Your task to perform on an android device: open app "TextNow: Call + Text Unlimited" (install if not already installed) and go to login screen Image 0: 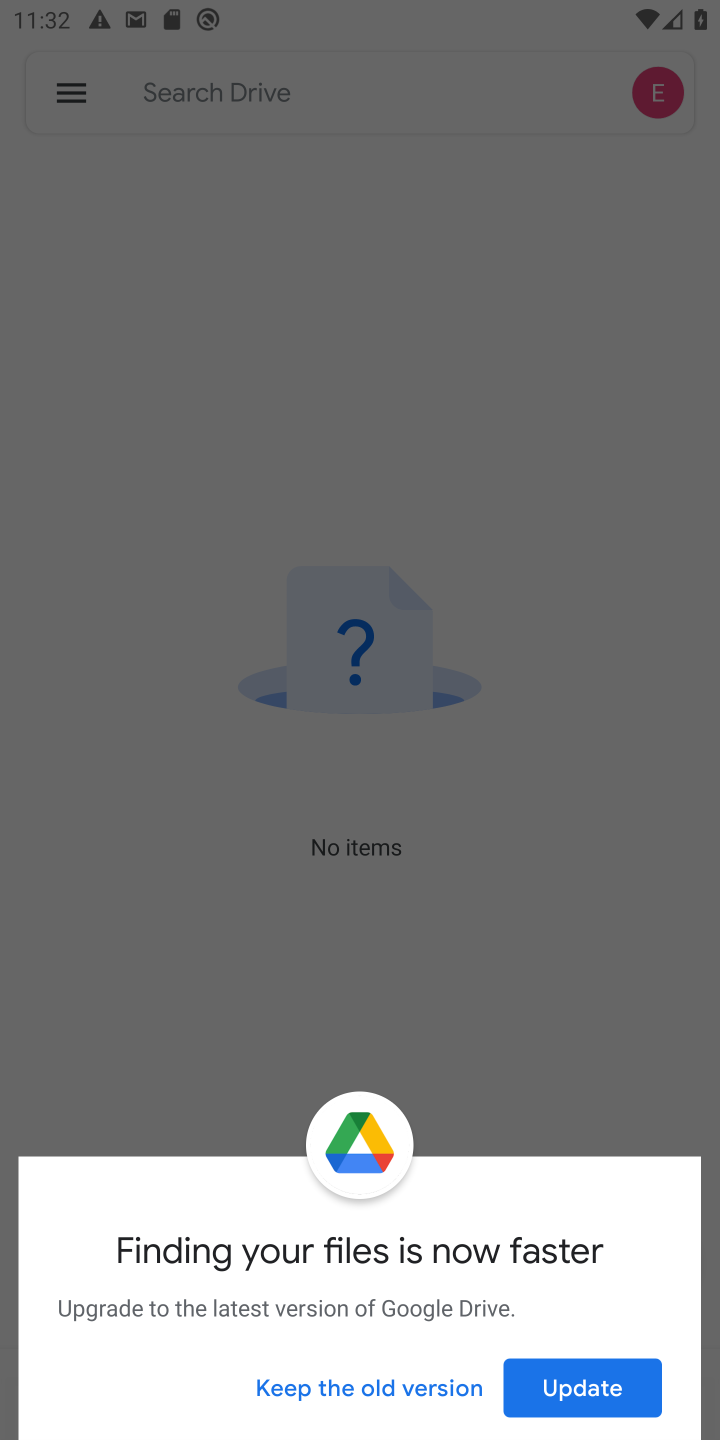
Step 0: press home button
Your task to perform on an android device: open app "TextNow: Call + Text Unlimited" (install if not already installed) and go to login screen Image 1: 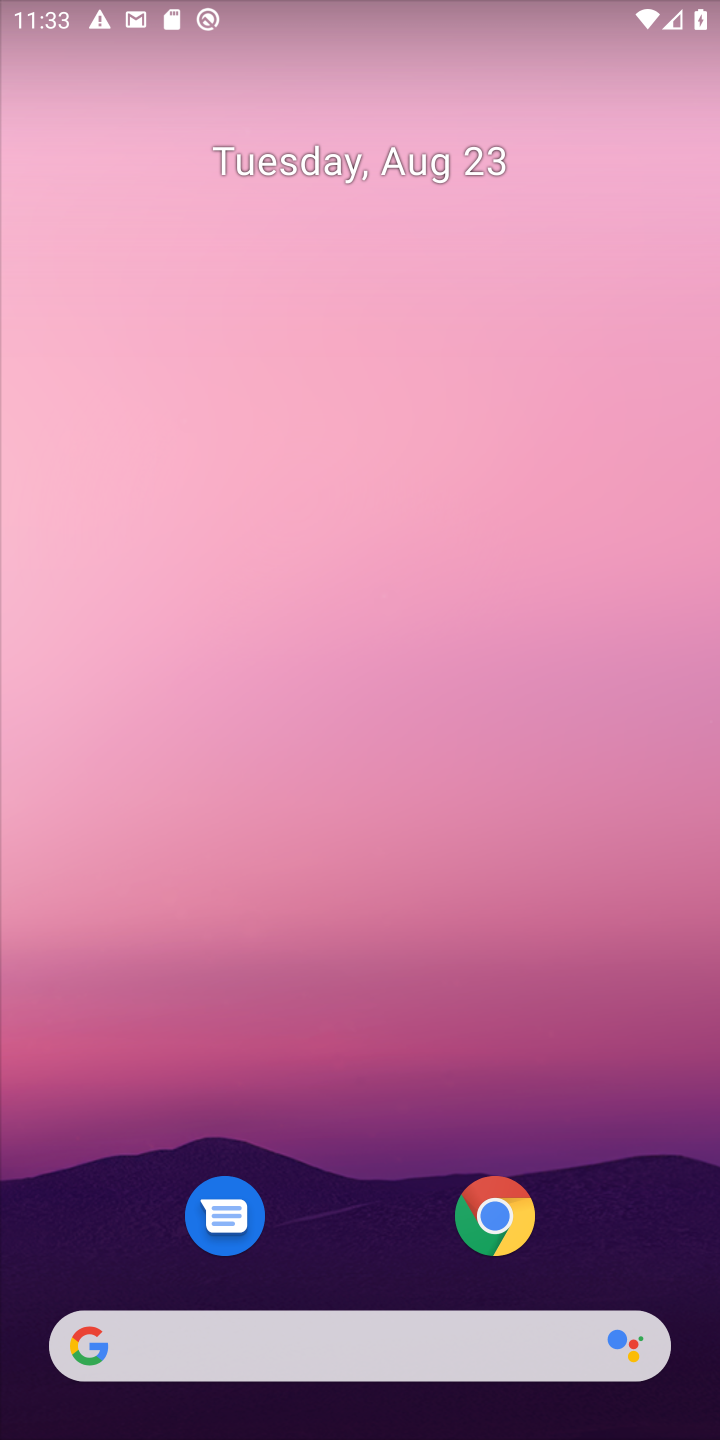
Step 1: drag from (306, 1358) to (411, 252)
Your task to perform on an android device: open app "TextNow: Call + Text Unlimited" (install if not already installed) and go to login screen Image 2: 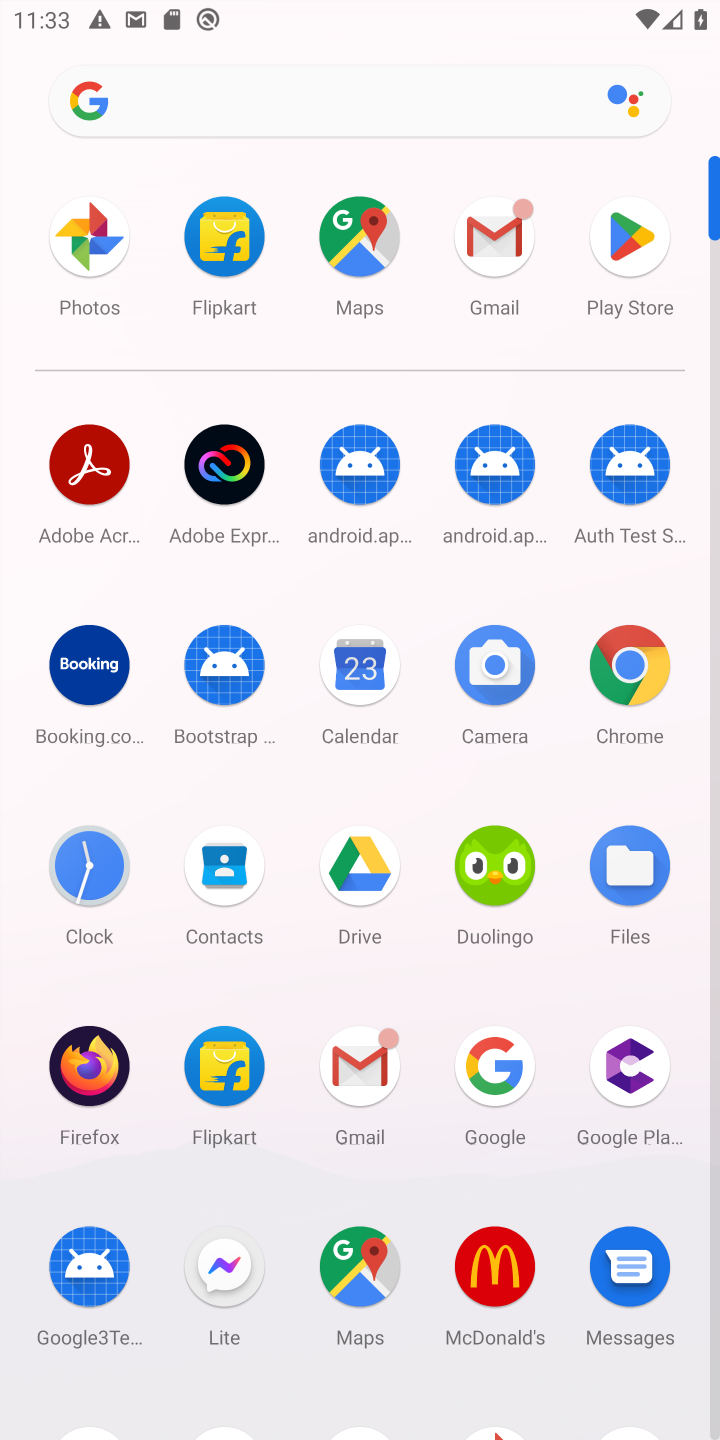
Step 2: click (633, 246)
Your task to perform on an android device: open app "TextNow: Call + Text Unlimited" (install if not already installed) and go to login screen Image 3: 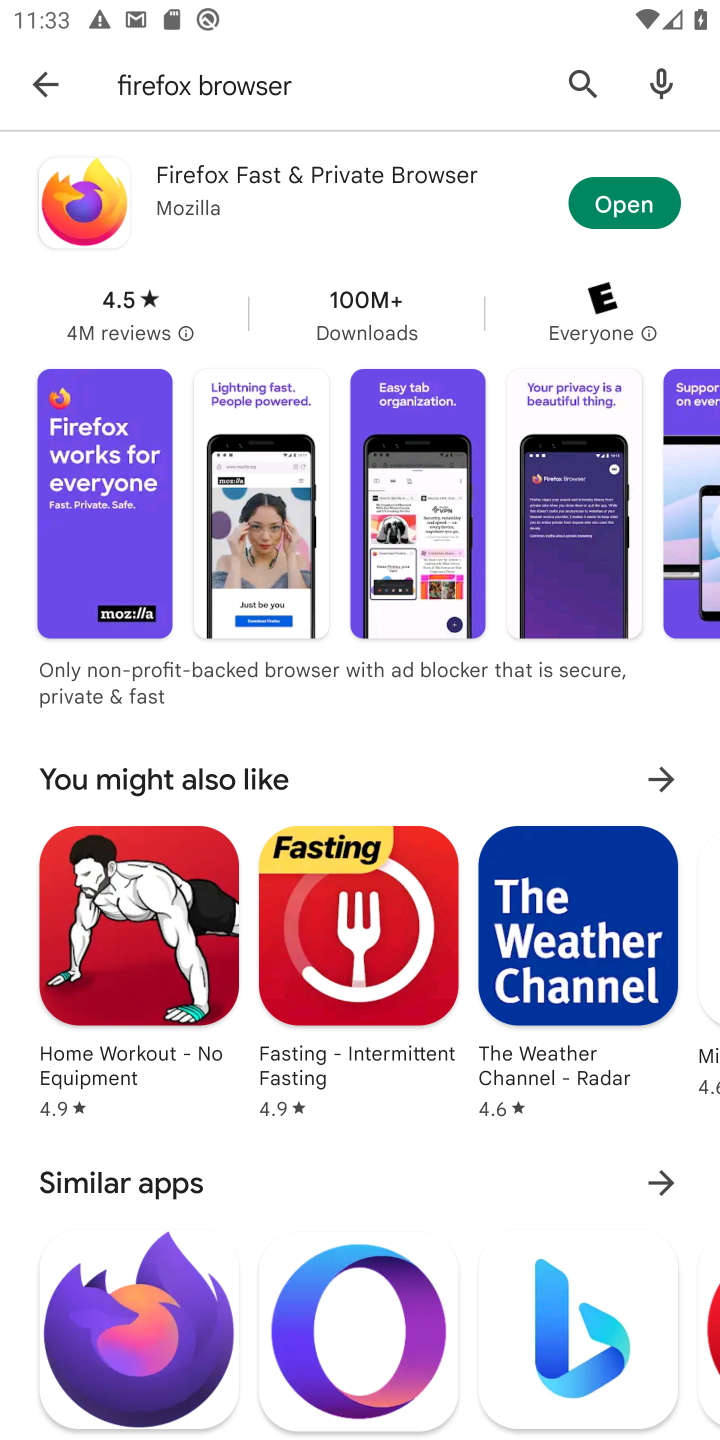
Step 3: press back button
Your task to perform on an android device: open app "TextNow: Call + Text Unlimited" (install if not already installed) and go to login screen Image 4: 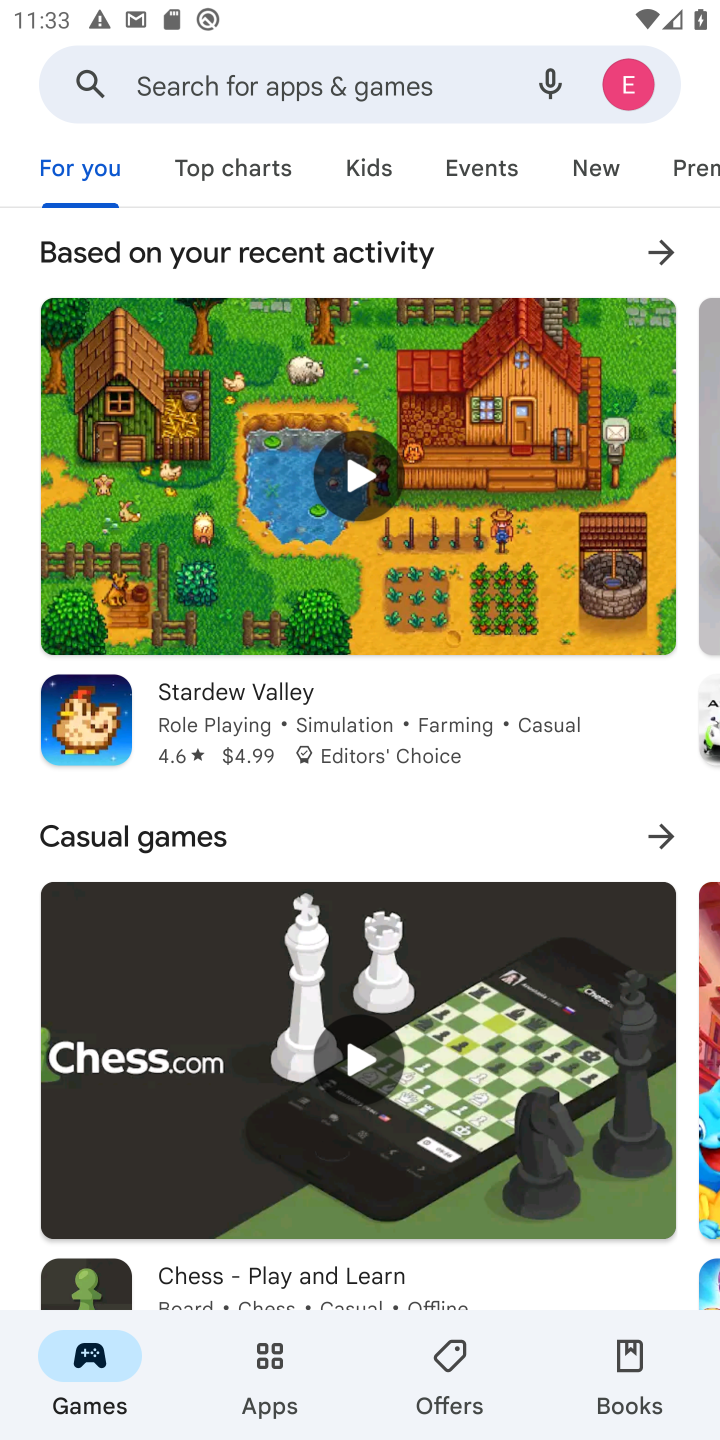
Step 4: click (299, 76)
Your task to perform on an android device: open app "TextNow: Call + Text Unlimited" (install if not already installed) and go to login screen Image 5: 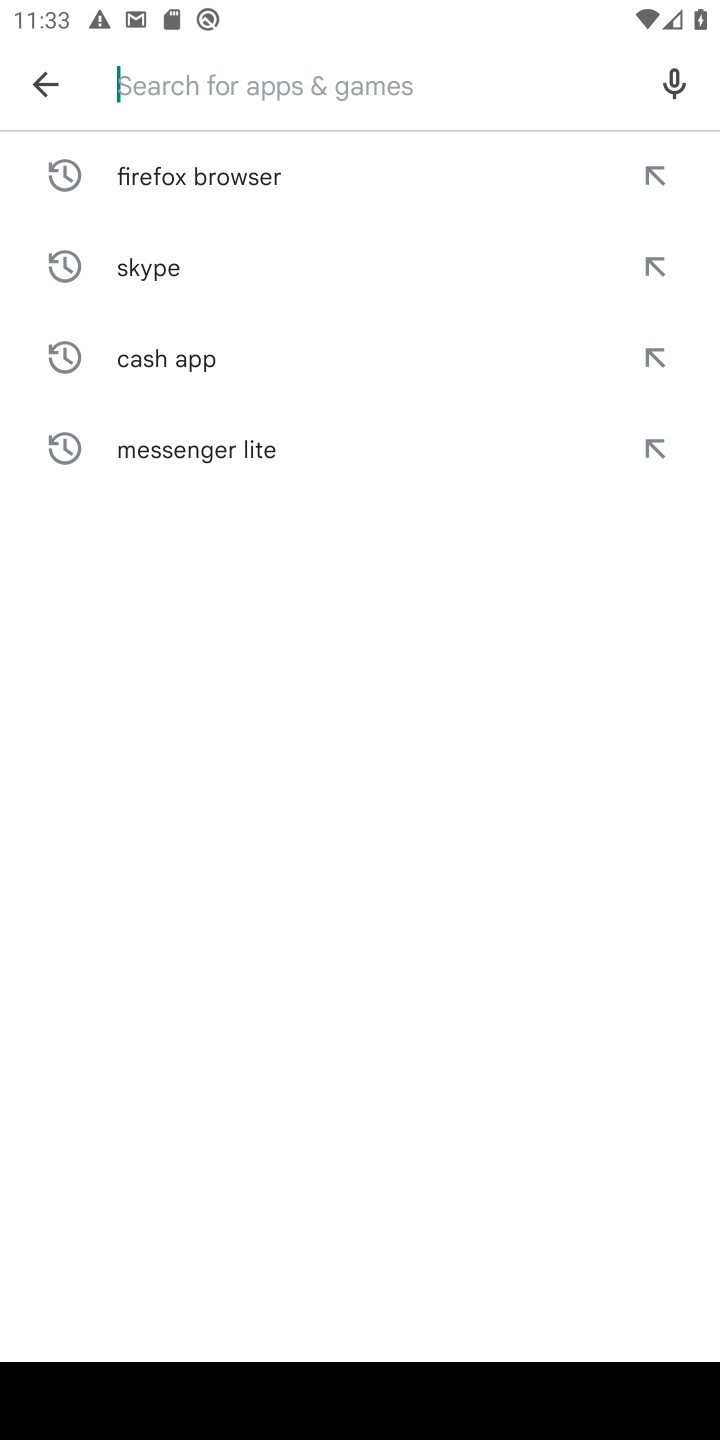
Step 5: type "TextNow: Call + Text Unlimited"
Your task to perform on an android device: open app "TextNow: Call + Text Unlimited" (install if not already installed) and go to login screen Image 6: 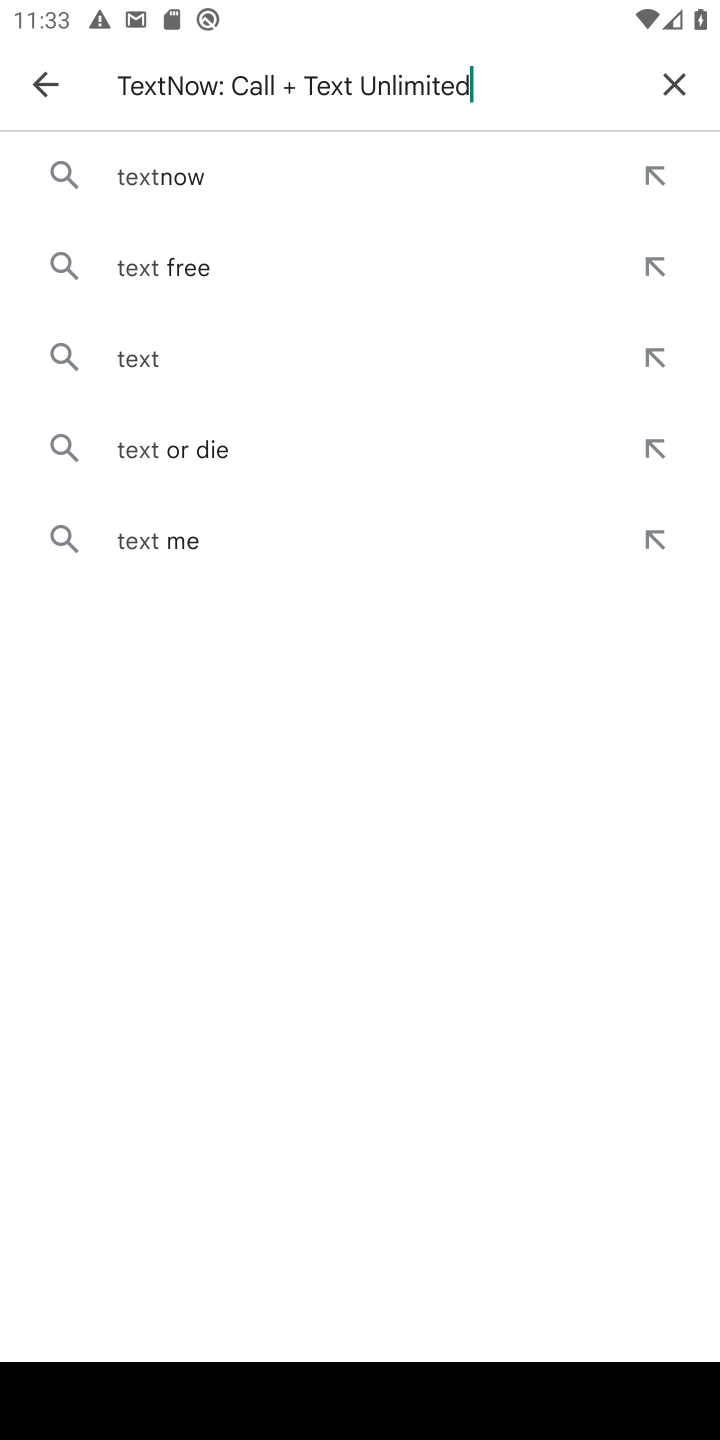
Step 6: type ""
Your task to perform on an android device: open app "TextNow: Call + Text Unlimited" (install if not already installed) and go to login screen Image 7: 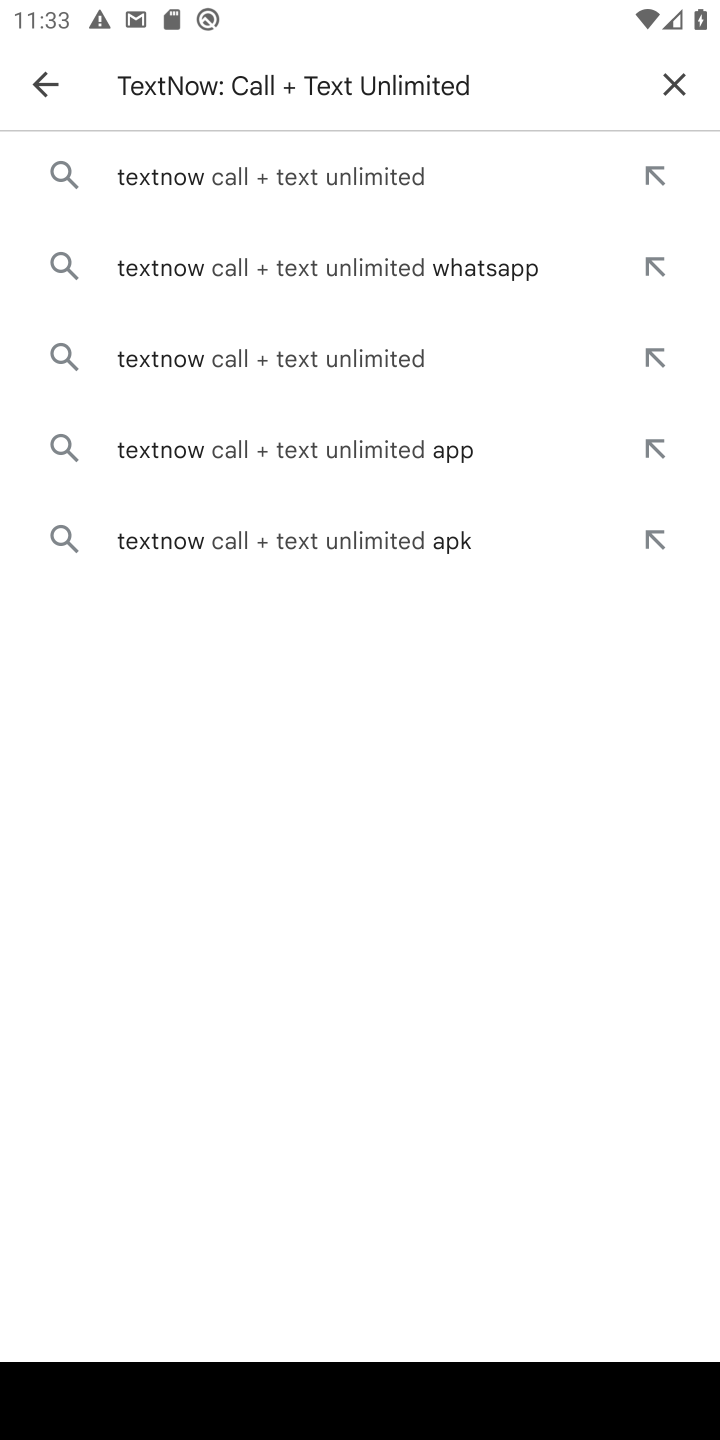
Step 7: click (363, 164)
Your task to perform on an android device: open app "TextNow: Call + Text Unlimited" (install if not already installed) and go to login screen Image 8: 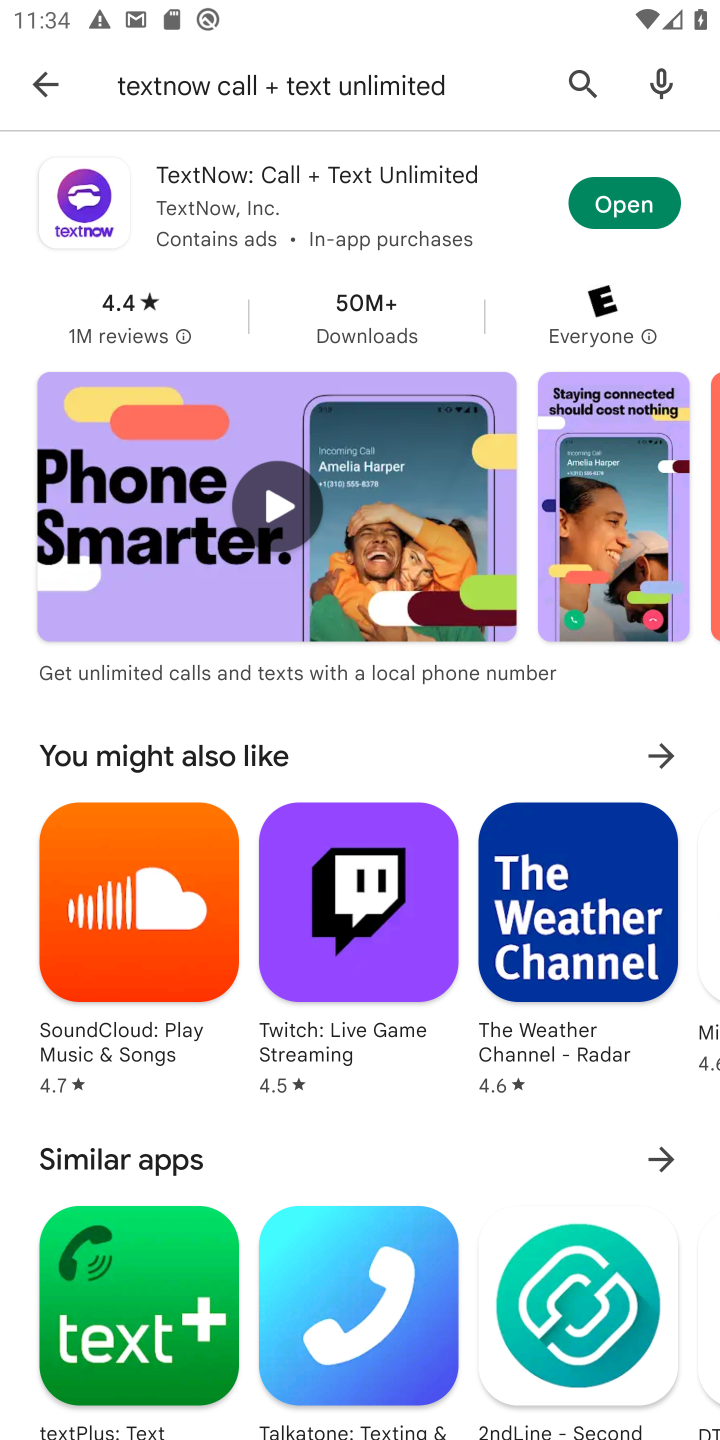
Step 8: click (591, 216)
Your task to perform on an android device: open app "TextNow: Call + Text Unlimited" (install if not already installed) and go to login screen Image 9: 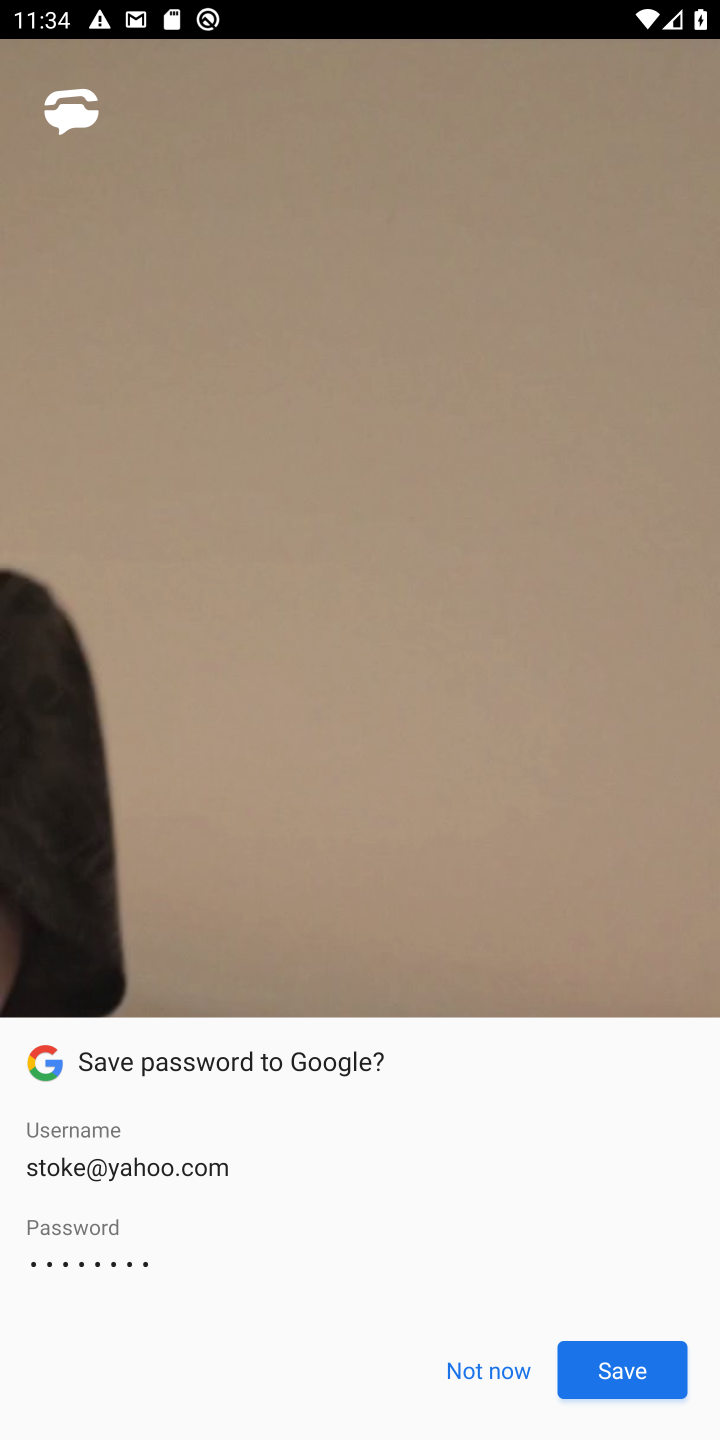
Step 9: click (475, 1368)
Your task to perform on an android device: open app "TextNow: Call + Text Unlimited" (install if not already installed) and go to login screen Image 10: 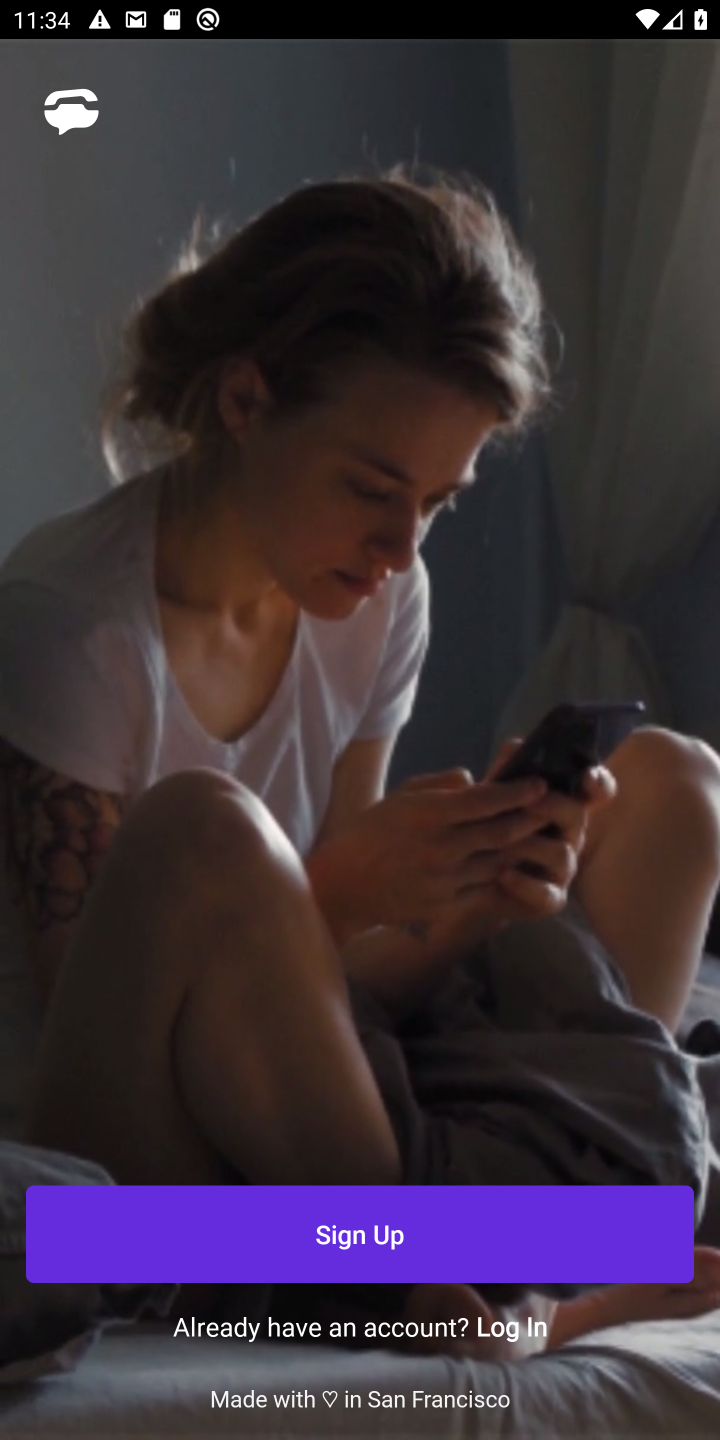
Step 10: task complete